Your task to perform on an android device: Go to internet settings Image 0: 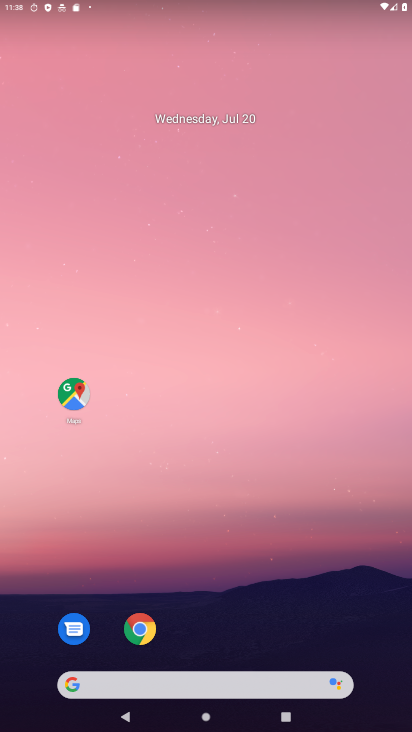
Step 0: drag from (178, 683) to (235, 5)
Your task to perform on an android device: Go to internet settings Image 1: 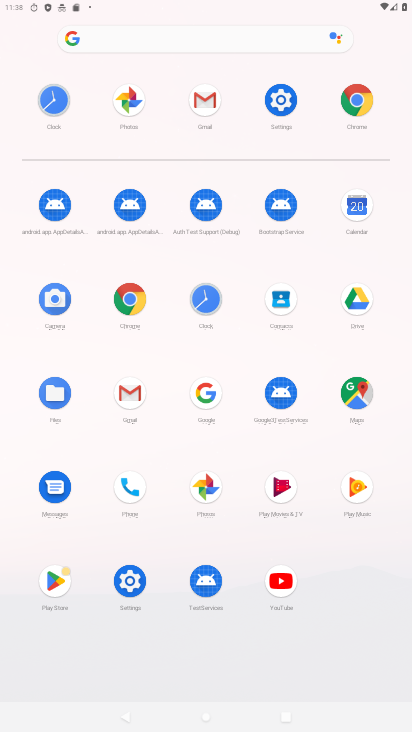
Step 1: click (278, 90)
Your task to perform on an android device: Go to internet settings Image 2: 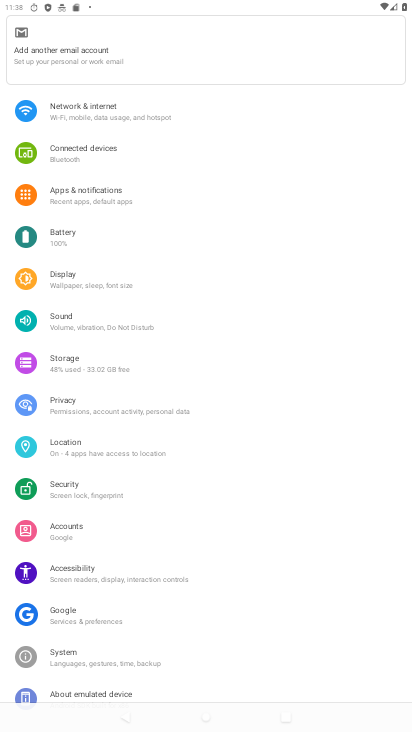
Step 2: click (118, 104)
Your task to perform on an android device: Go to internet settings Image 3: 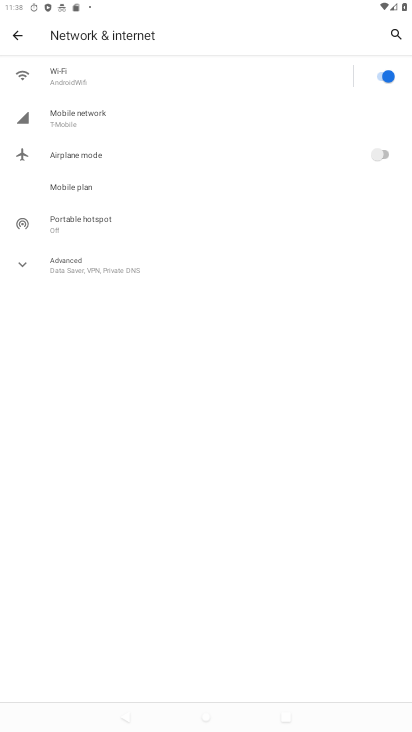
Step 3: task complete